Your task to perform on an android device: Open the phone app and click the voicemail tab. Image 0: 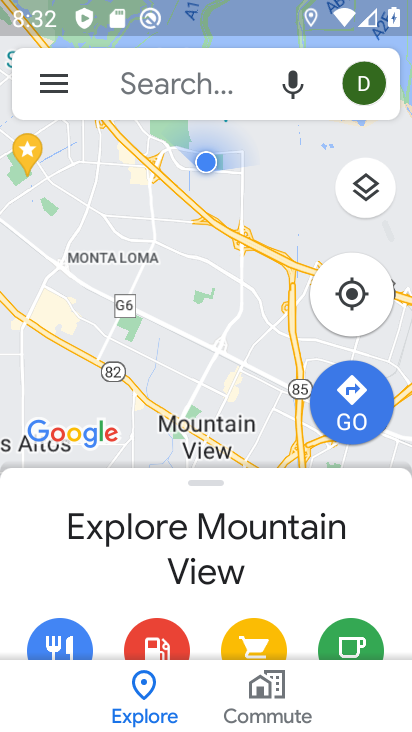
Step 0: press home button
Your task to perform on an android device: Open the phone app and click the voicemail tab. Image 1: 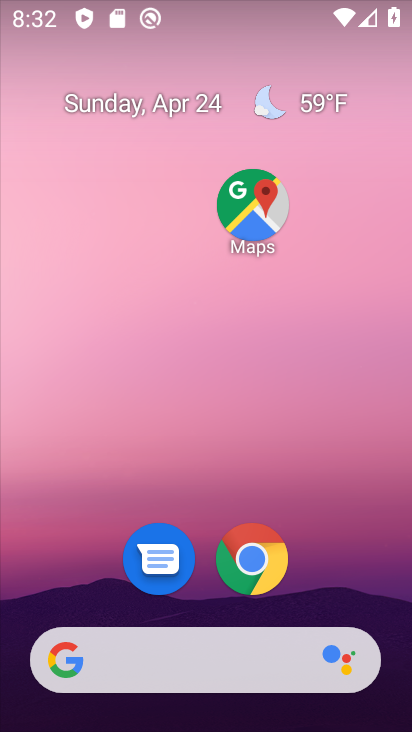
Step 1: drag from (30, 601) to (176, 191)
Your task to perform on an android device: Open the phone app and click the voicemail tab. Image 2: 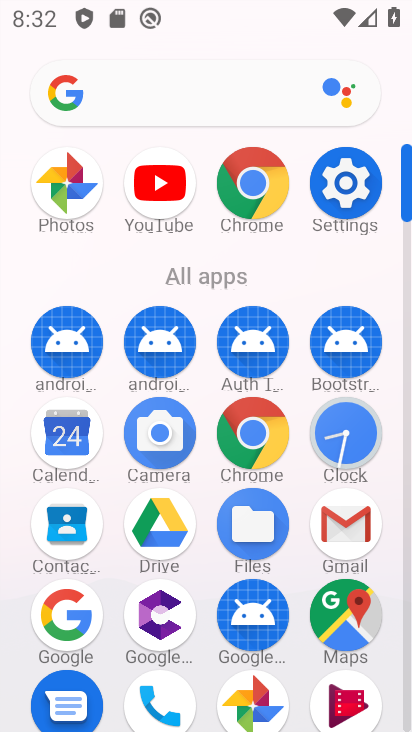
Step 2: click (175, 690)
Your task to perform on an android device: Open the phone app and click the voicemail tab. Image 3: 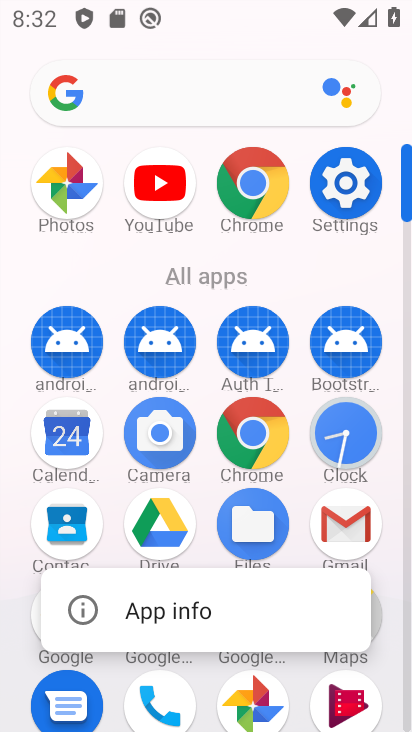
Step 3: click (78, 608)
Your task to perform on an android device: Open the phone app and click the voicemail tab. Image 4: 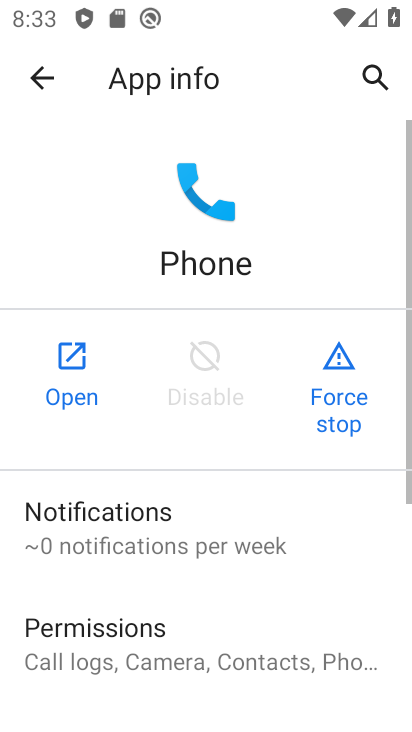
Step 4: click (63, 374)
Your task to perform on an android device: Open the phone app and click the voicemail tab. Image 5: 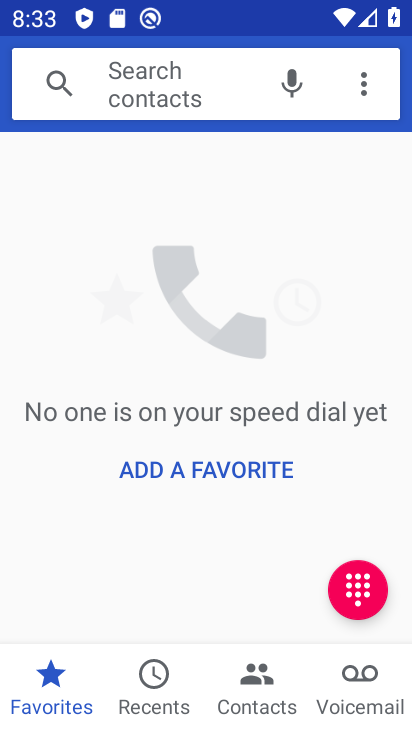
Step 5: click (354, 688)
Your task to perform on an android device: Open the phone app and click the voicemail tab. Image 6: 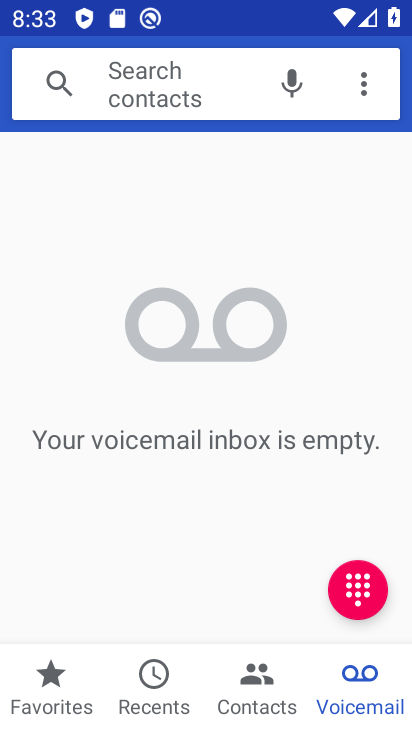
Step 6: task complete